Your task to perform on an android device: check out phone information Image 0: 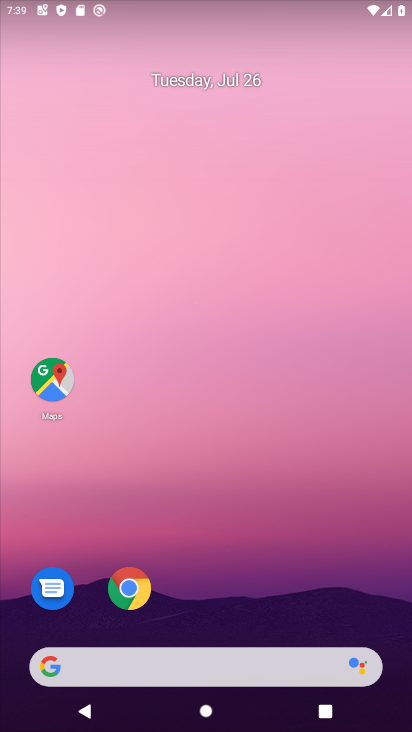
Step 0: drag from (239, 578) to (263, 107)
Your task to perform on an android device: check out phone information Image 1: 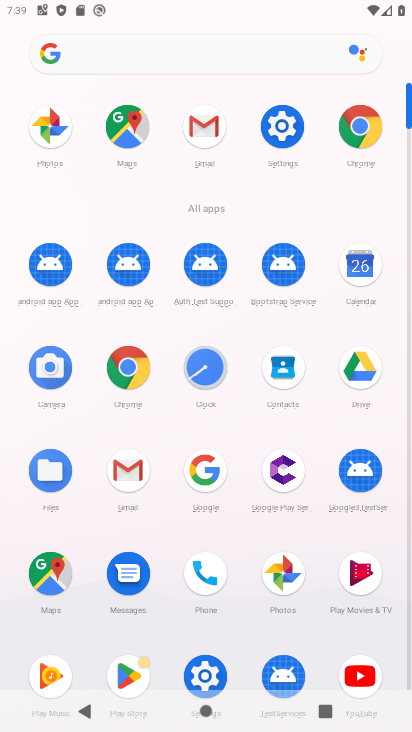
Step 1: click (282, 141)
Your task to perform on an android device: check out phone information Image 2: 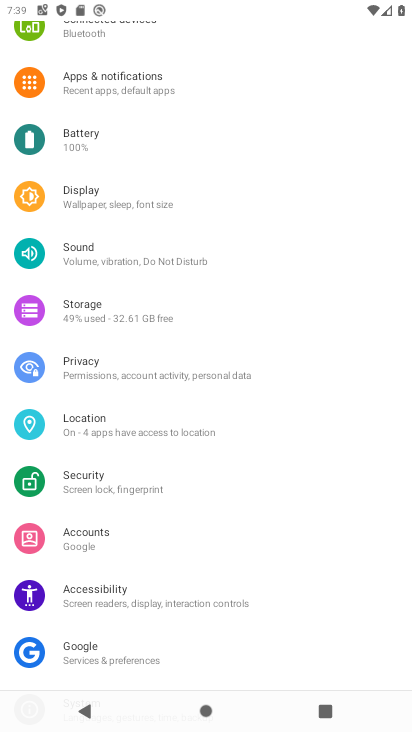
Step 2: click (90, 651)
Your task to perform on an android device: check out phone information Image 3: 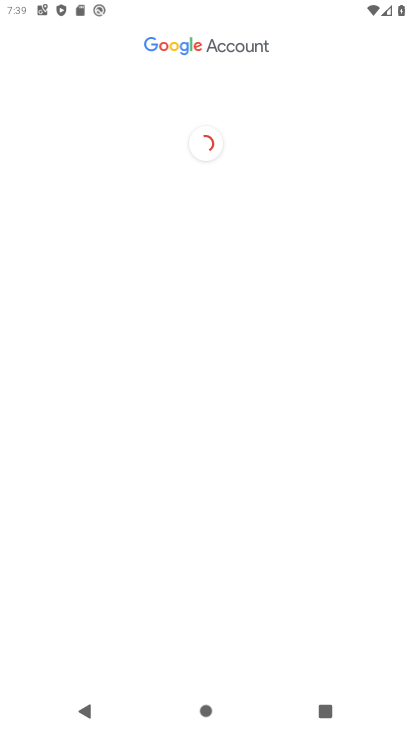
Step 3: task complete